Your task to perform on an android device: Open the downloads Image 0: 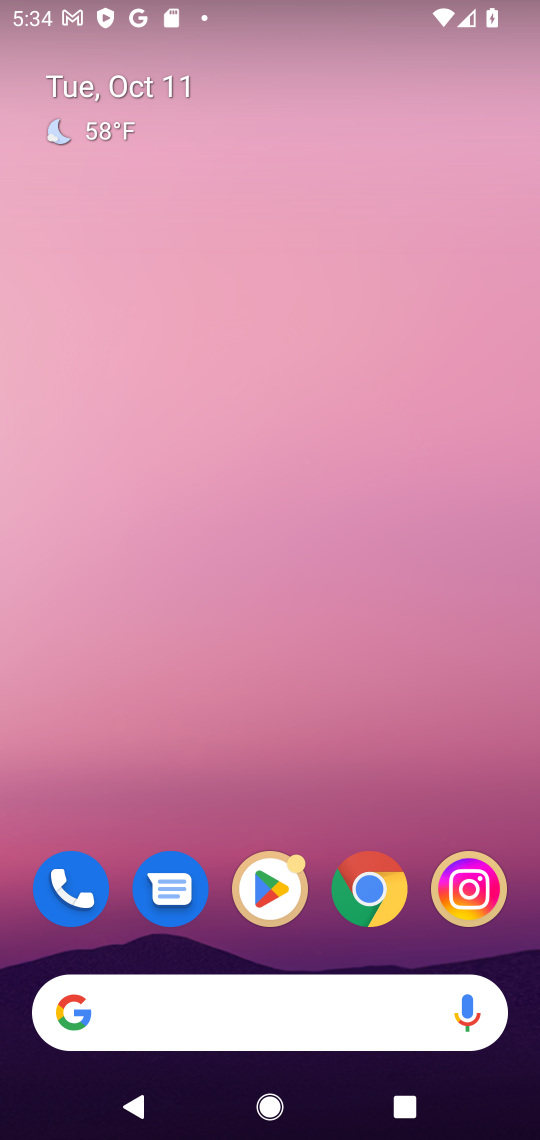
Step 0: drag from (123, 961) to (177, 355)
Your task to perform on an android device: Open the downloads Image 1: 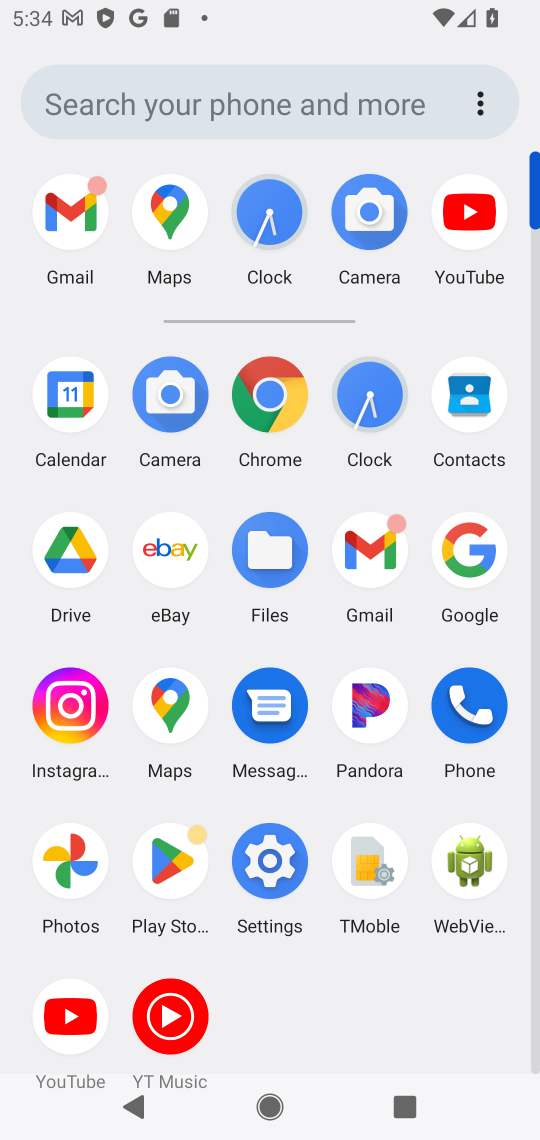
Step 1: click (271, 853)
Your task to perform on an android device: Open the downloads Image 2: 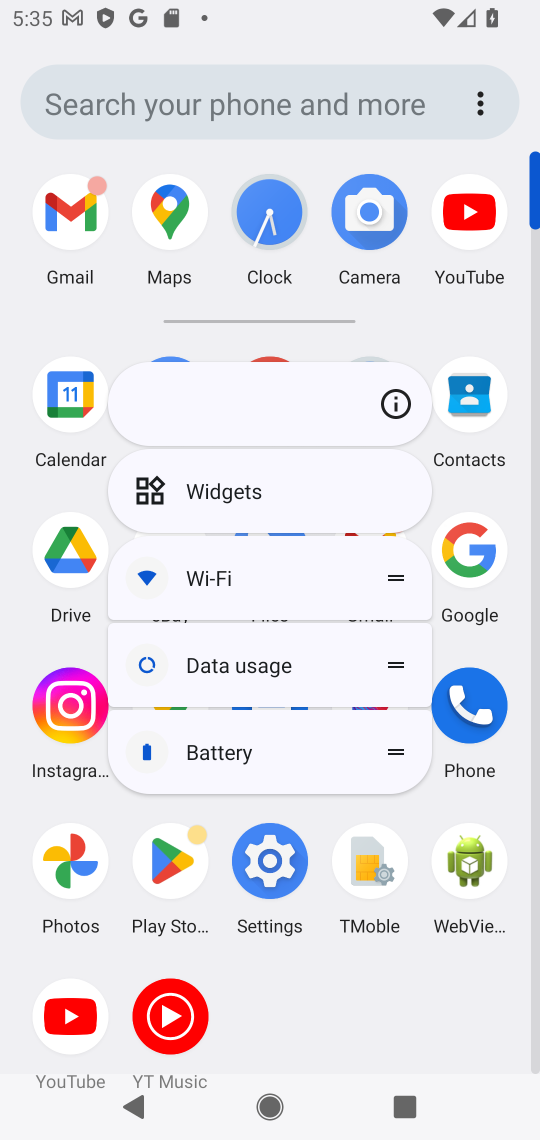
Step 2: click (271, 853)
Your task to perform on an android device: Open the downloads Image 3: 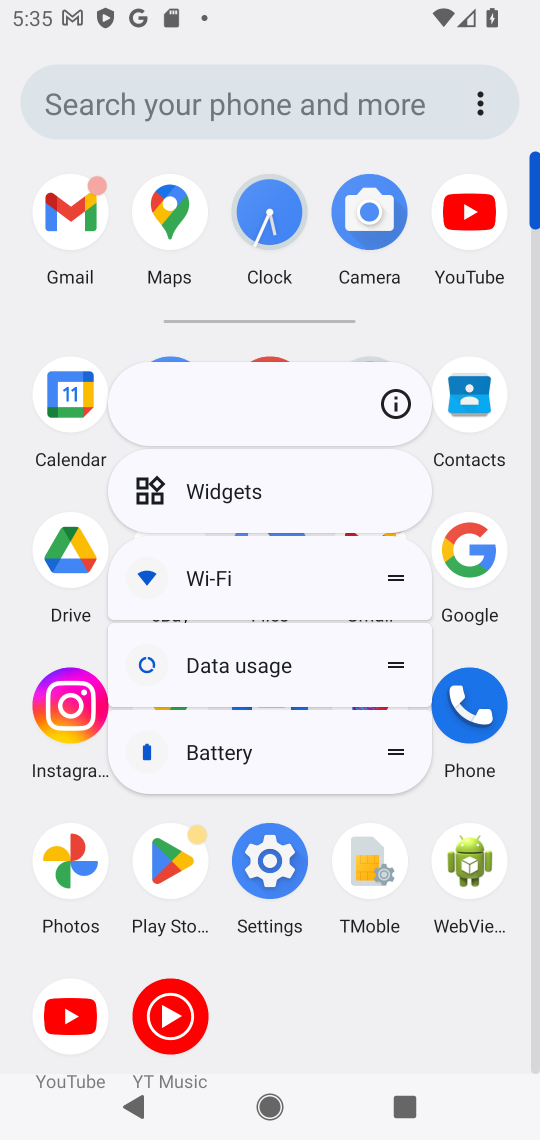
Step 3: click (271, 856)
Your task to perform on an android device: Open the downloads Image 4: 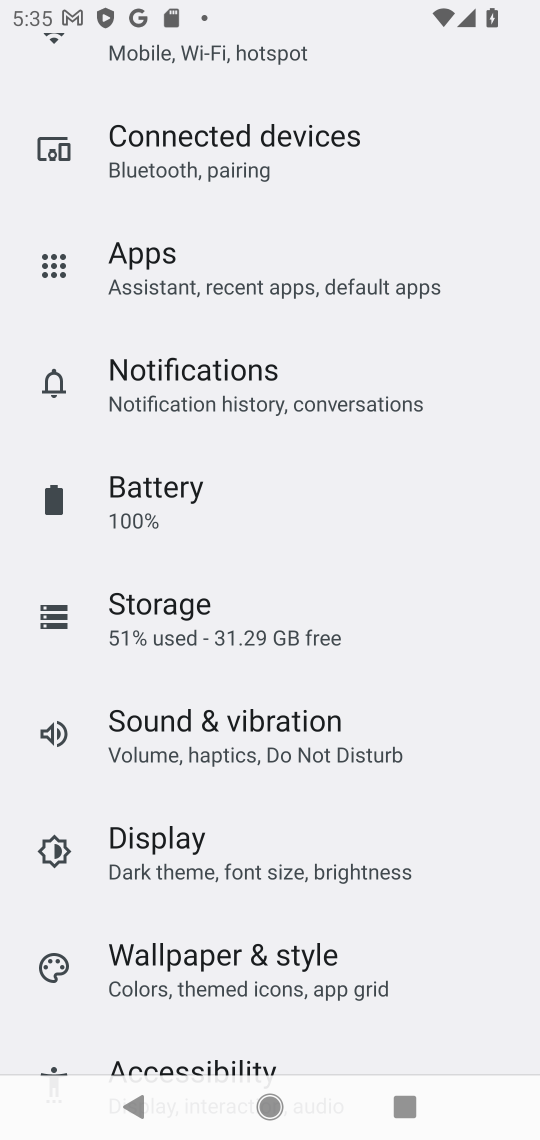
Step 4: drag from (255, 1077) to (417, 244)
Your task to perform on an android device: Open the downloads Image 5: 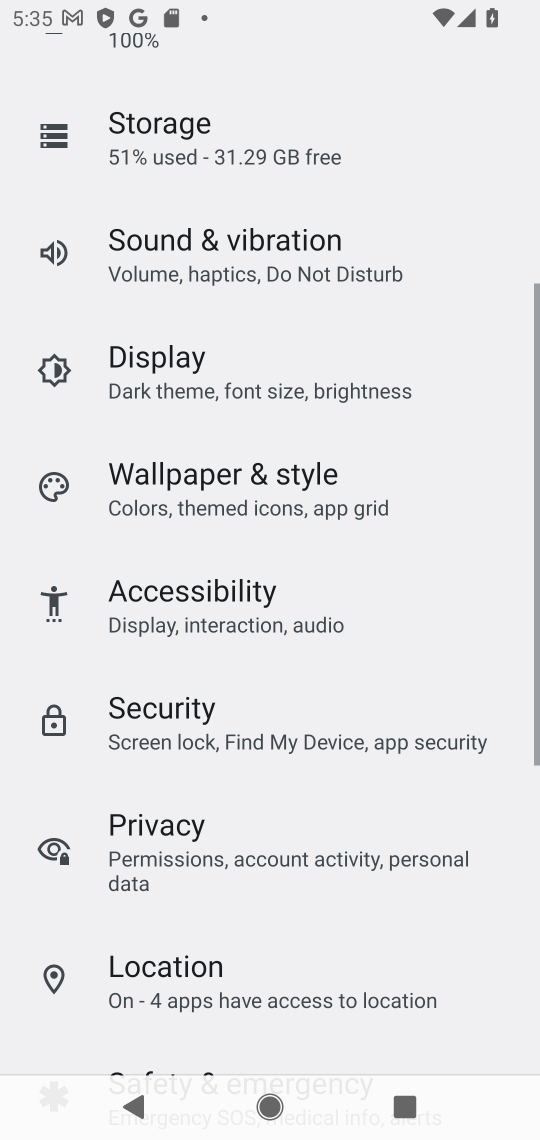
Step 5: drag from (317, 688) to (284, 129)
Your task to perform on an android device: Open the downloads Image 6: 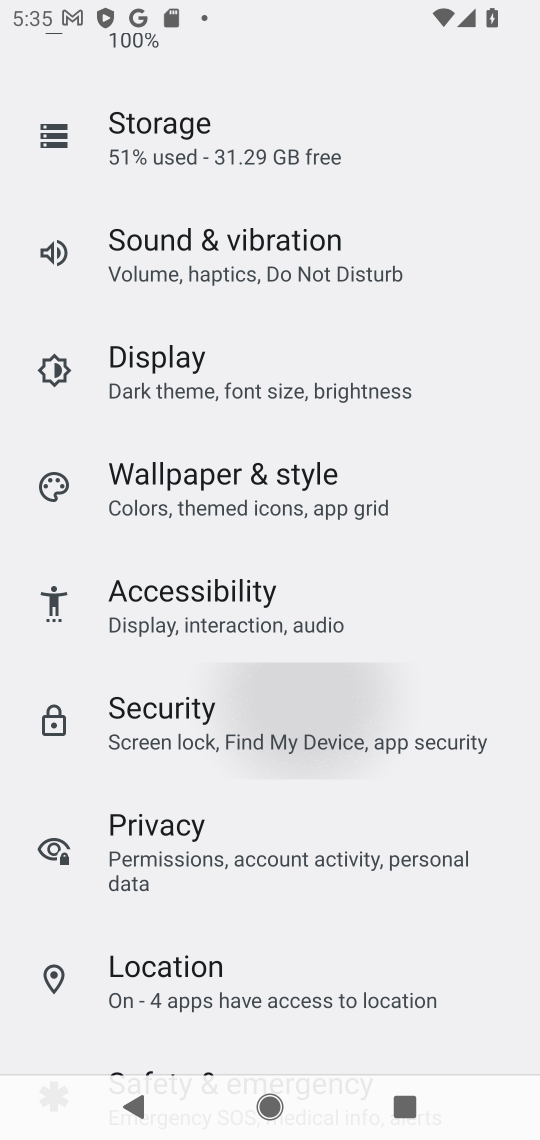
Step 6: drag from (214, 748) to (272, 230)
Your task to perform on an android device: Open the downloads Image 7: 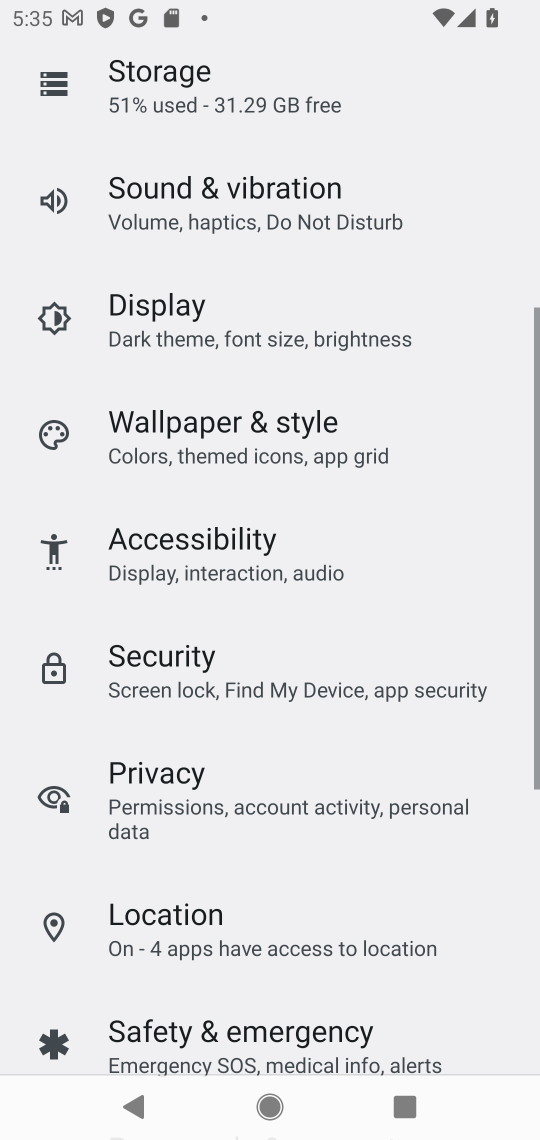
Step 7: click (277, 421)
Your task to perform on an android device: Open the downloads Image 8: 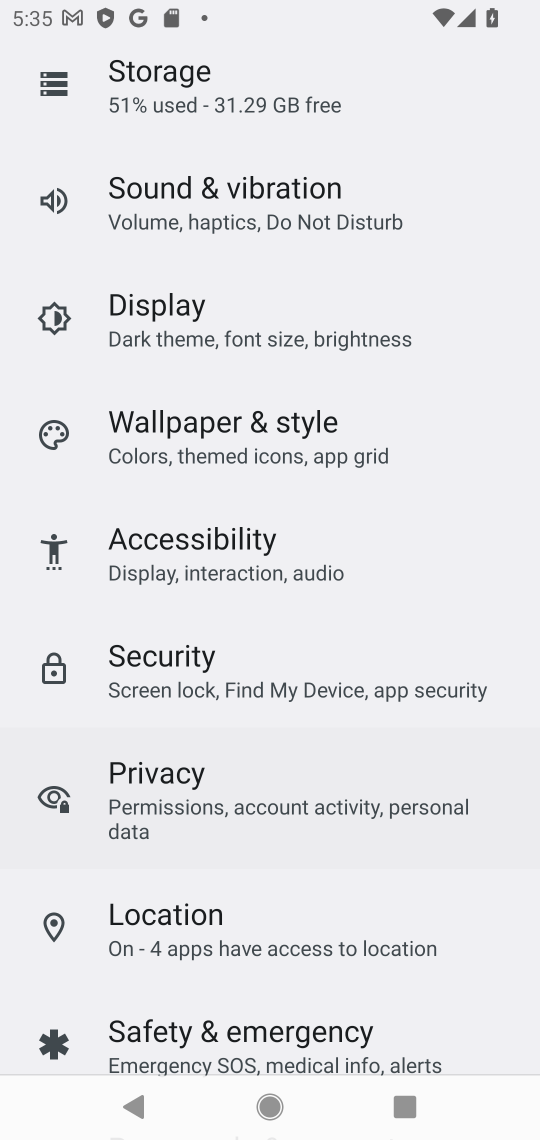
Step 8: drag from (243, 389) to (243, 157)
Your task to perform on an android device: Open the downloads Image 9: 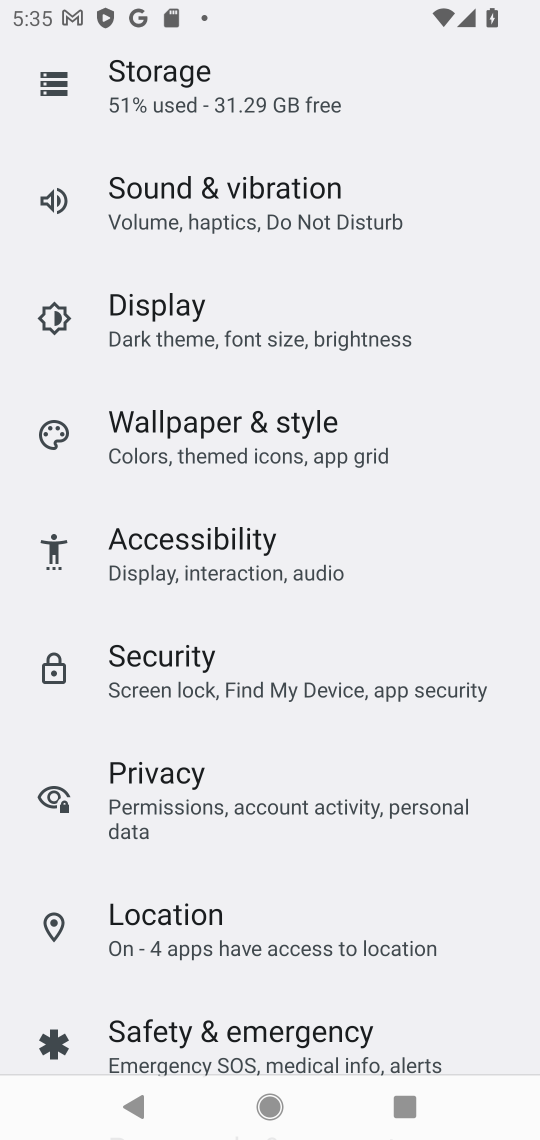
Step 9: press home button
Your task to perform on an android device: Open the downloads Image 10: 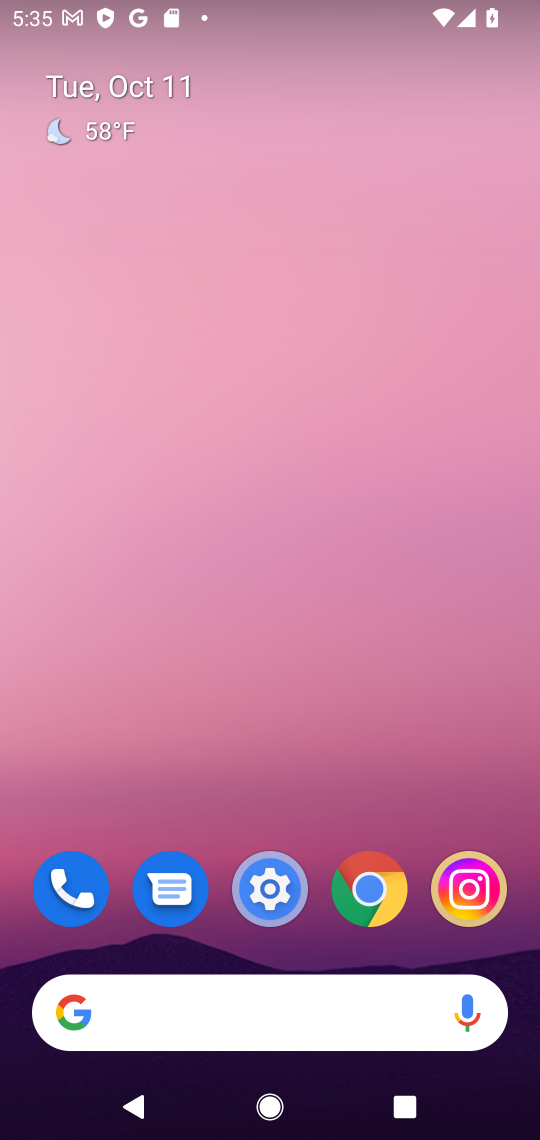
Step 10: drag from (310, 962) to (307, 349)
Your task to perform on an android device: Open the downloads Image 11: 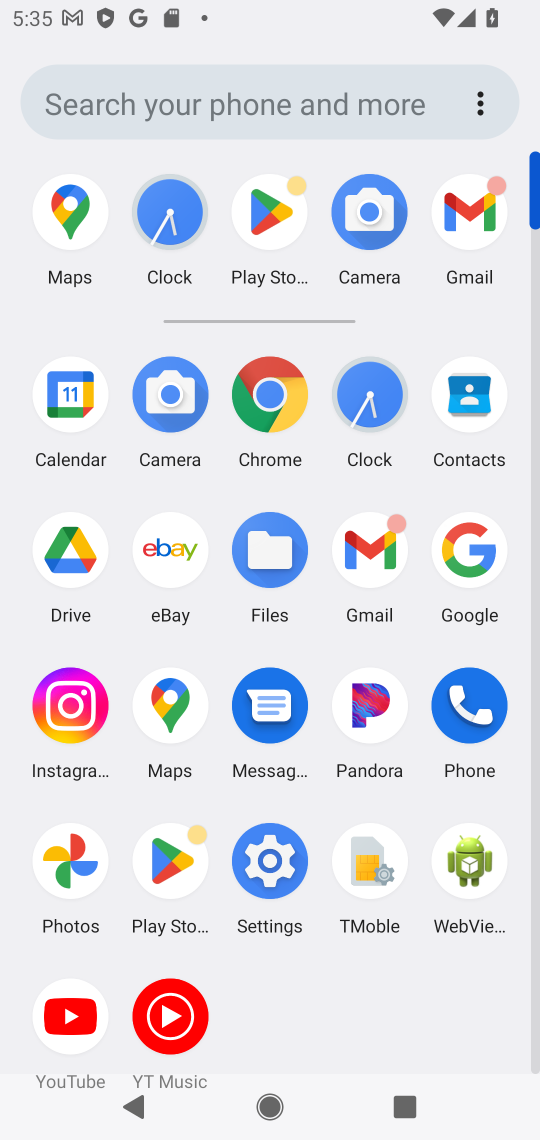
Step 11: click (164, 851)
Your task to perform on an android device: Open the downloads Image 12: 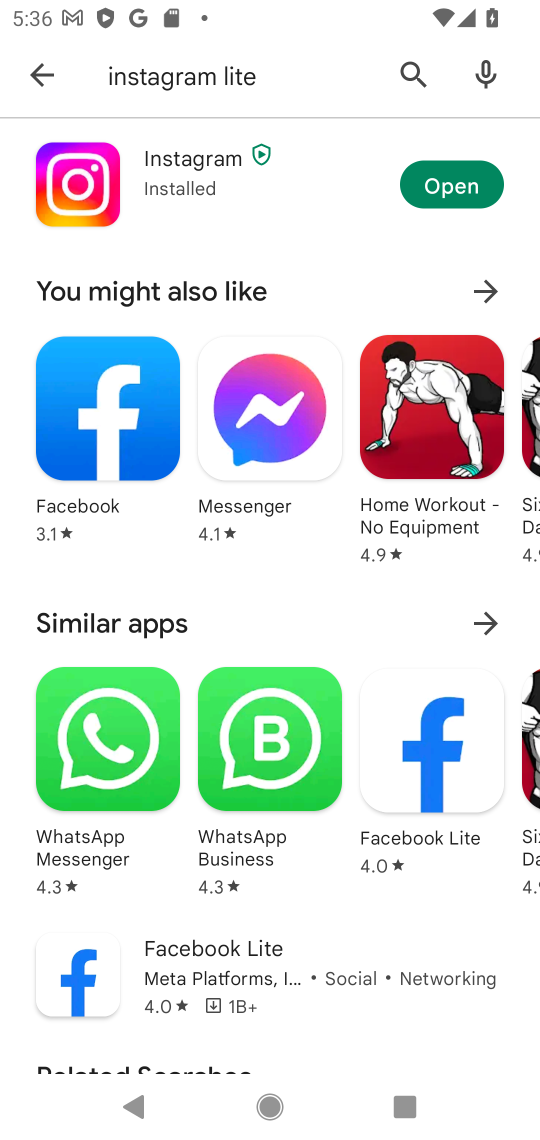
Step 12: click (35, 74)
Your task to perform on an android device: Open the downloads Image 13: 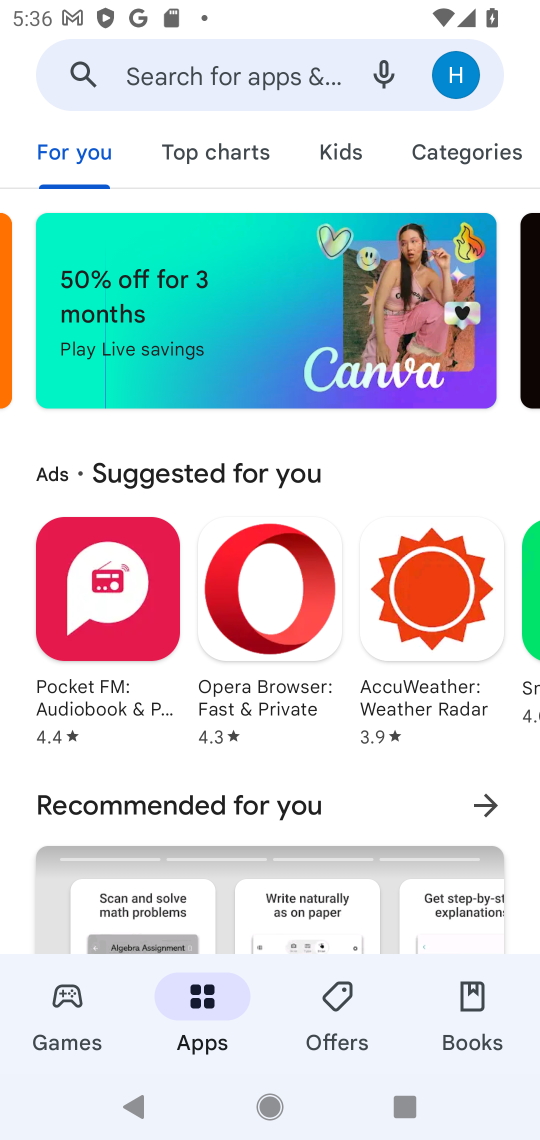
Step 13: click (484, 1010)
Your task to perform on an android device: Open the downloads Image 14: 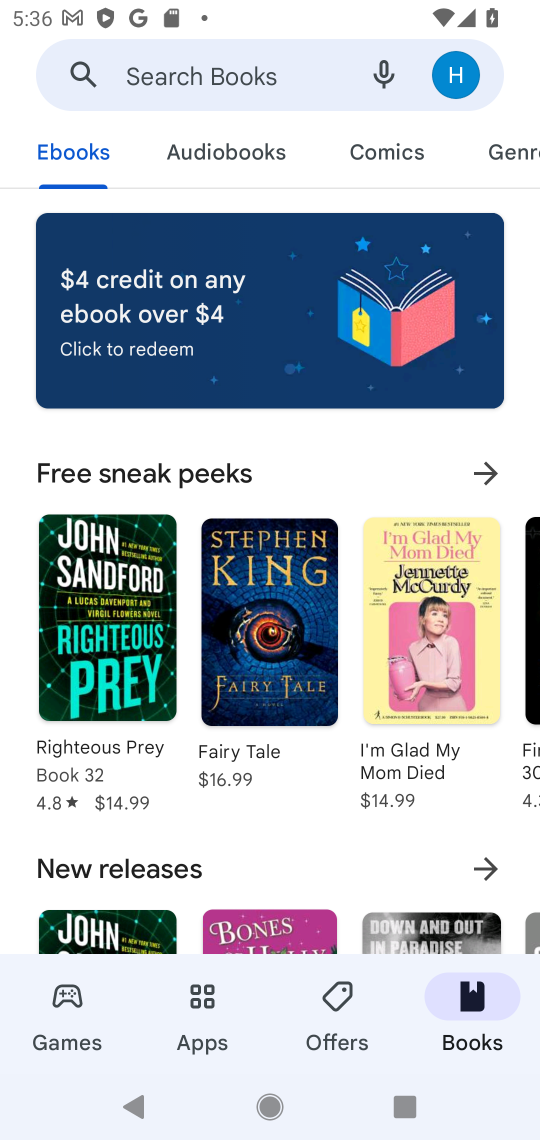
Step 14: click (363, 139)
Your task to perform on an android device: Open the downloads Image 15: 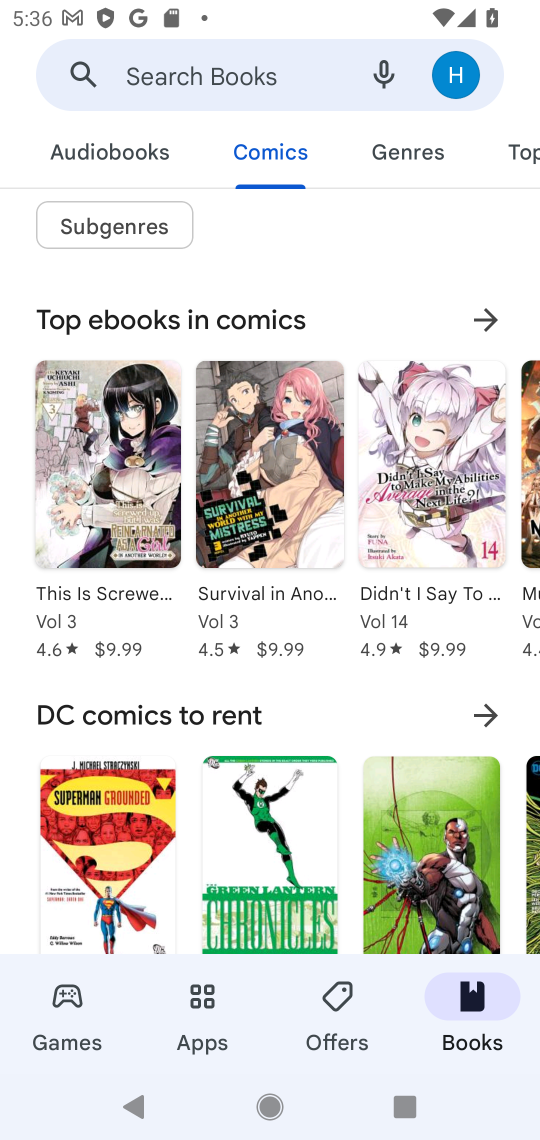
Step 15: task complete